Your task to perform on an android device: Go to Reddit Image 0: 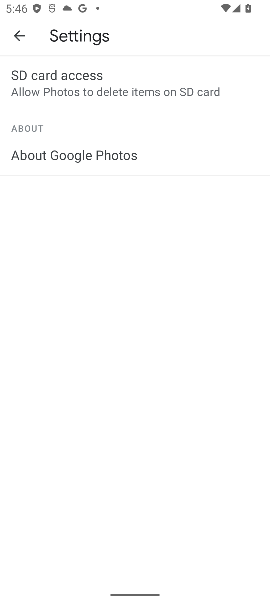
Step 0: press home button
Your task to perform on an android device: Go to Reddit Image 1: 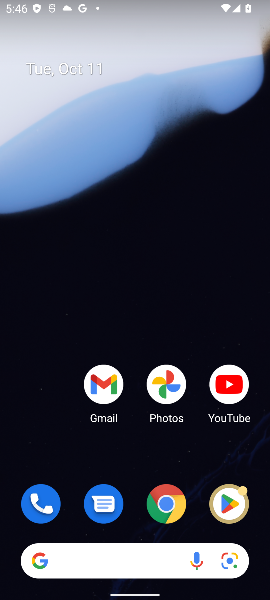
Step 1: click (92, 569)
Your task to perform on an android device: Go to Reddit Image 2: 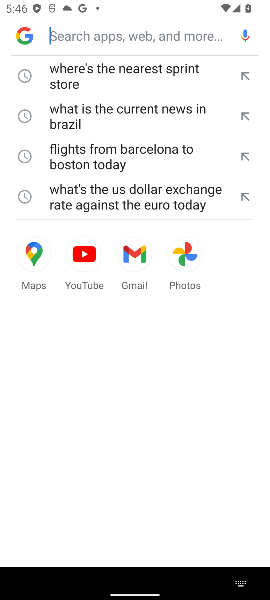
Step 2: click (75, 34)
Your task to perform on an android device: Go to Reddit Image 3: 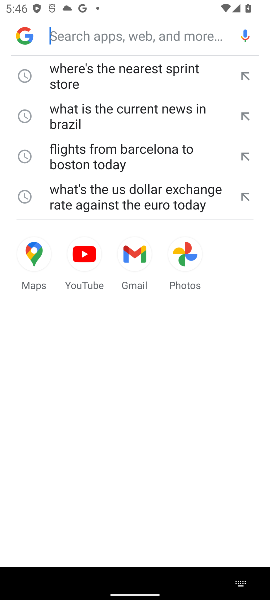
Step 3: type "Reddit"
Your task to perform on an android device: Go to Reddit Image 4: 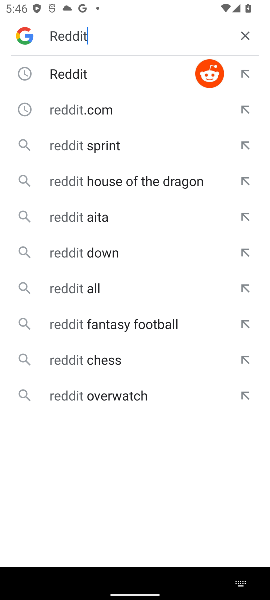
Step 4: click (93, 75)
Your task to perform on an android device: Go to Reddit Image 5: 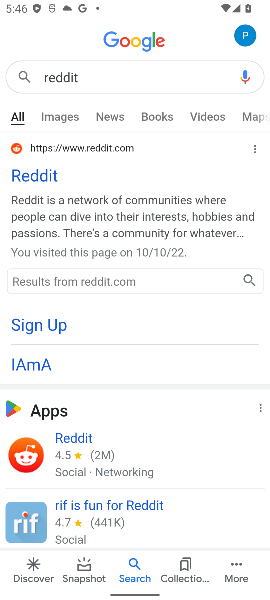
Step 5: click (48, 177)
Your task to perform on an android device: Go to Reddit Image 6: 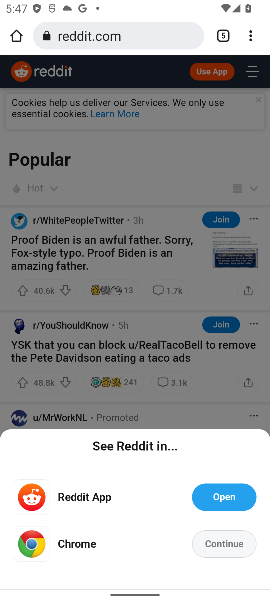
Step 6: task complete